Your task to perform on an android device: Go to battery settings Image 0: 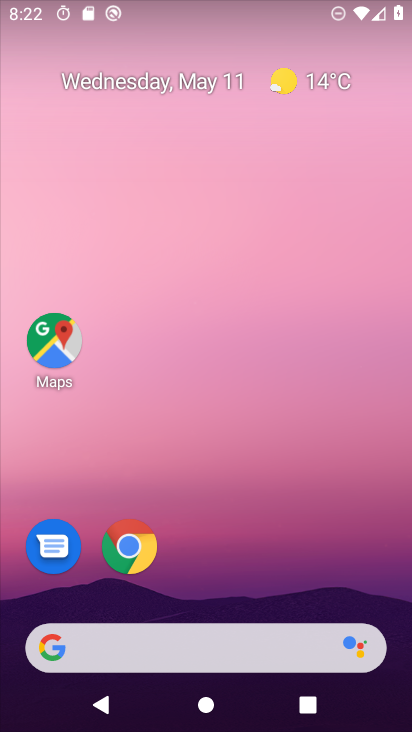
Step 0: drag from (238, 656) to (150, 139)
Your task to perform on an android device: Go to battery settings Image 1: 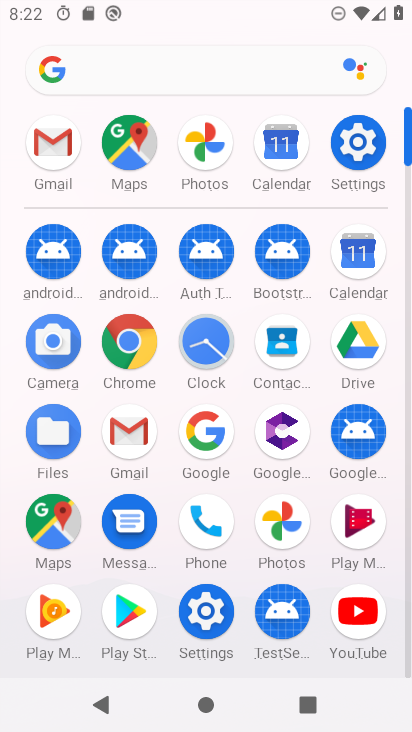
Step 1: click (362, 154)
Your task to perform on an android device: Go to battery settings Image 2: 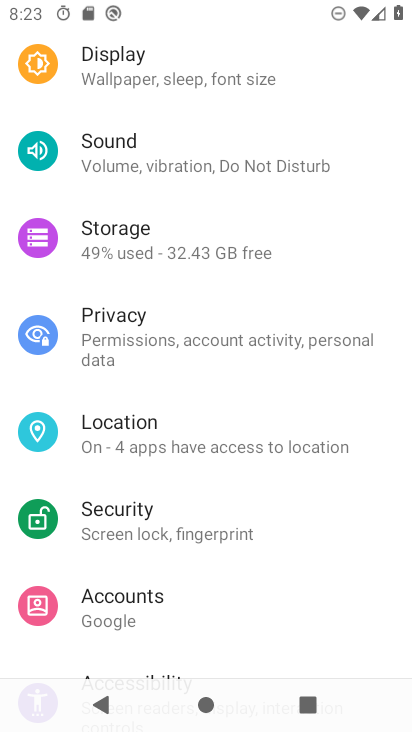
Step 2: drag from (169, 231) to (205, 596)
Your task to perform on an android device: Go to battery settings Image 3: 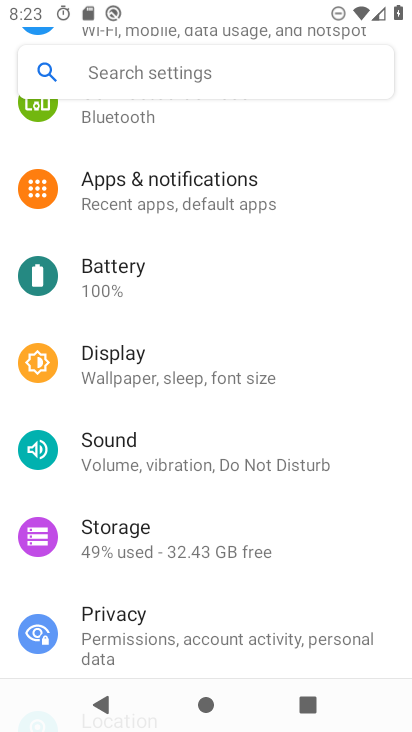
Step 3: click (134, 291)
Your task to perform on an android device: Go to battery settings Image 4: 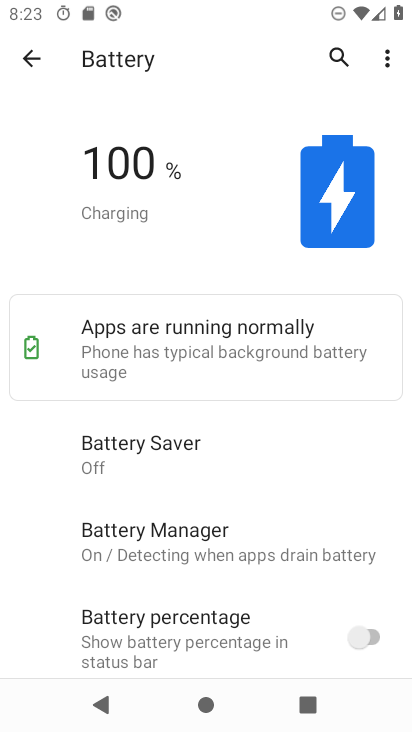
Step 4: task complete